Your task to perform on an android device: toggle javascript in the chrome app Image 0: 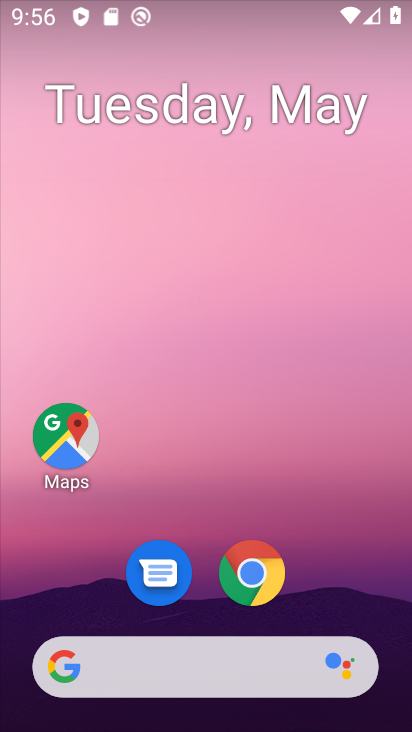
Step 0: click (255, 567)
Your task to perform on an android device: toggle javascript in the chrome app Image 1: 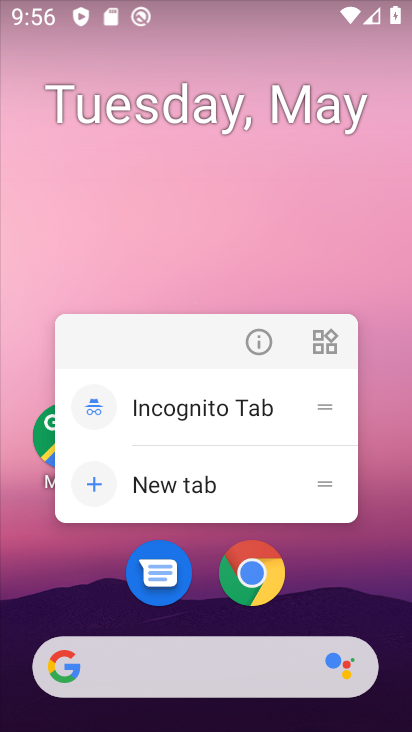
Step 1: click (296, 243)
Your task to perform on an android device: toggle javascript in the chrome app Image 2: 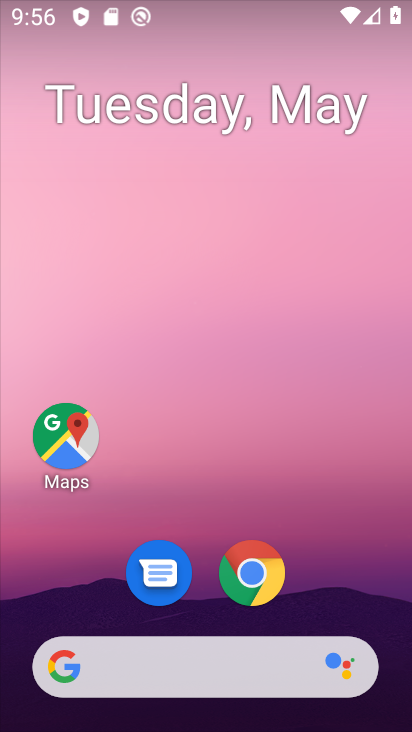
Step 2: drag from (346, 527) to (336, 150)
Your task to perform on an android device: toggle javascript in the chrome app Image 3: 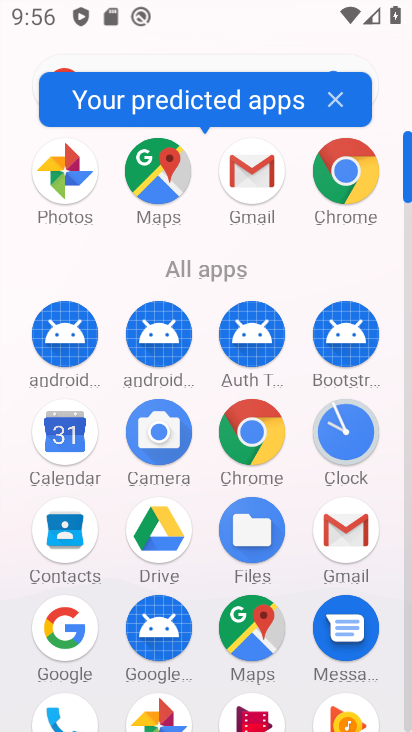
Step 3: click (257, 422)
Your task to perform on an android device: toggle javascript in the chrome app Image 4: 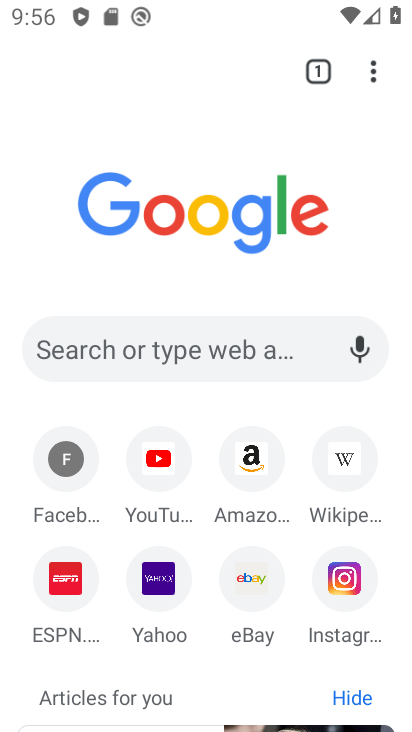
Step 4: drag from (375, 67) to (162, 594)
Your task to perform on an android device: toggle javascript in the chrome app Image 5: 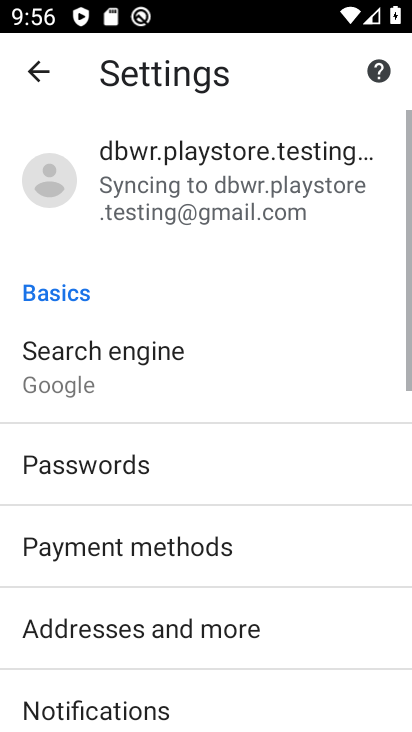
Step 5: drag from (226, 658) to (226, 257)
Your task to perform on an android device: toggle javascript in the chrome app Image 6: 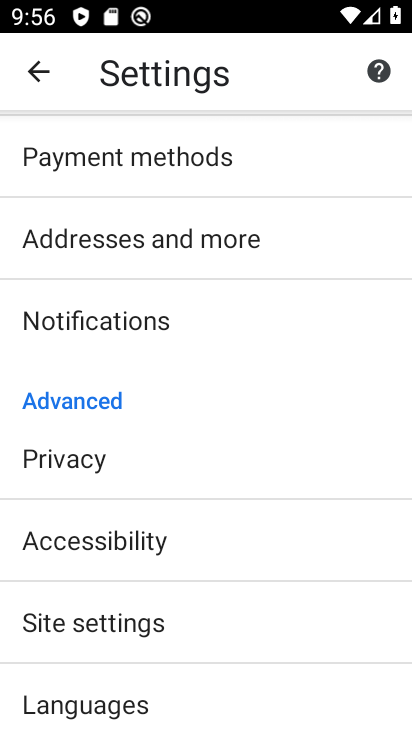
Step 6: click (143, 619)
Your task to perform on an android device: toggle javascript in the chrome app Image 7: 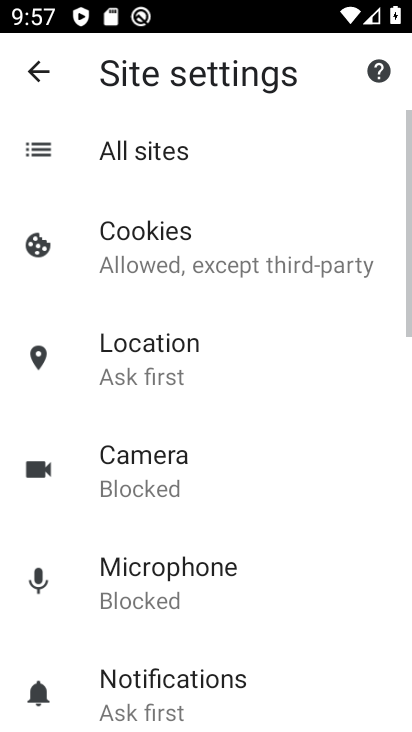
Step 7: drag from (296, 629) to (281, 231)
Your task to perform on an android device: toggle javascript in the chrome app Image 8: 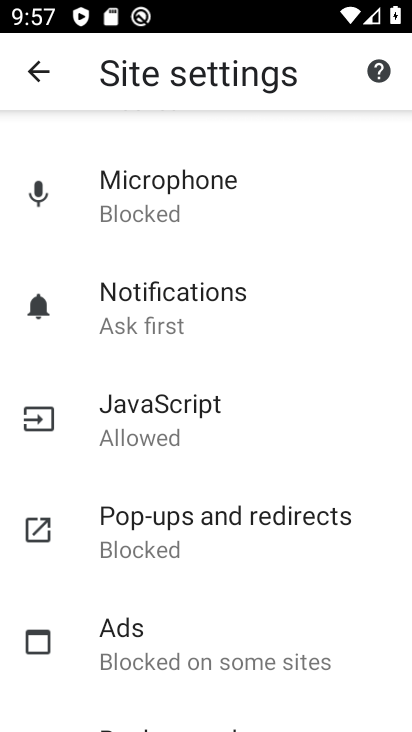
Step 8: click (116, 416)
Your task to perform on an android device: toggle javascript in the chrome app Image 9: 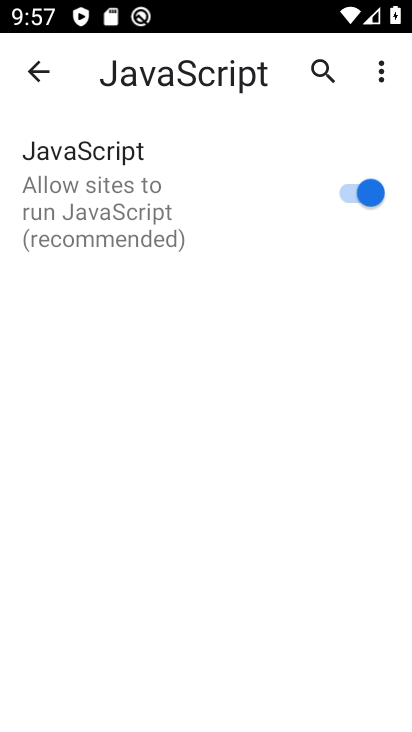
Step 9: click (366, 200)
Your task to perform on an android device: toggle javascript in the chrome app Image 10: 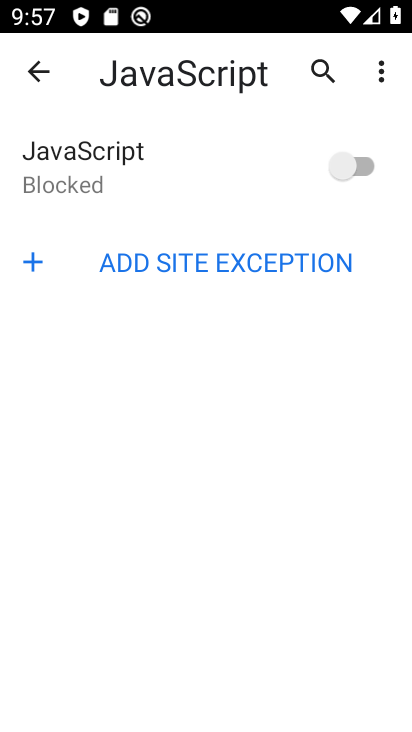
Step 10: task complete